Your task to perform on an android device: turn off picture-in-picture Image 0: 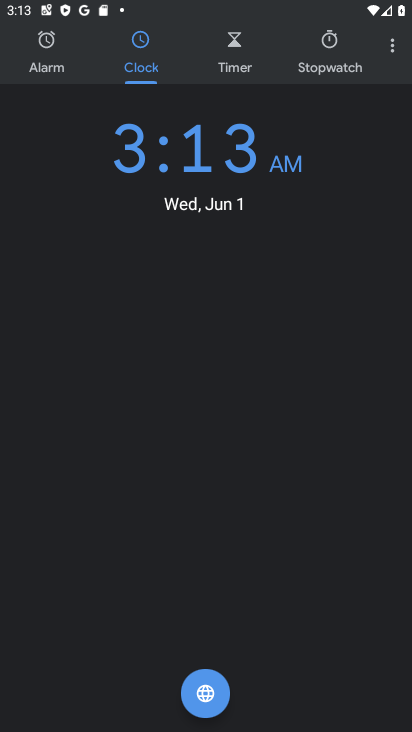
Step 0: press back button
Your task to perform on an android device: turn off picture-in-picture Image 1: 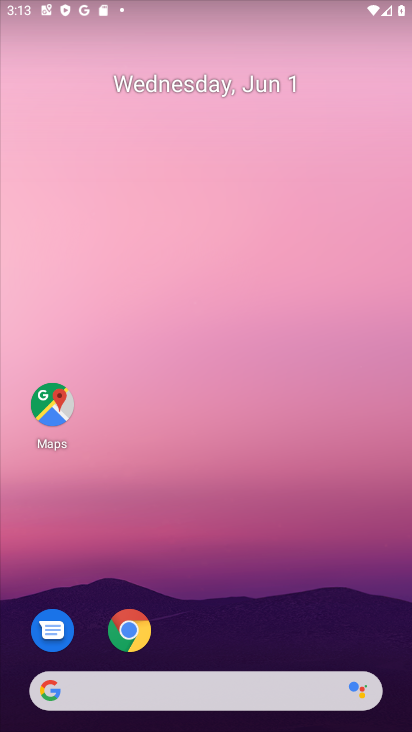
Step 1: drag from (206, 604) to (235, 73)
Your task to perform on an android device: turn off picture-in-picture Image 2: 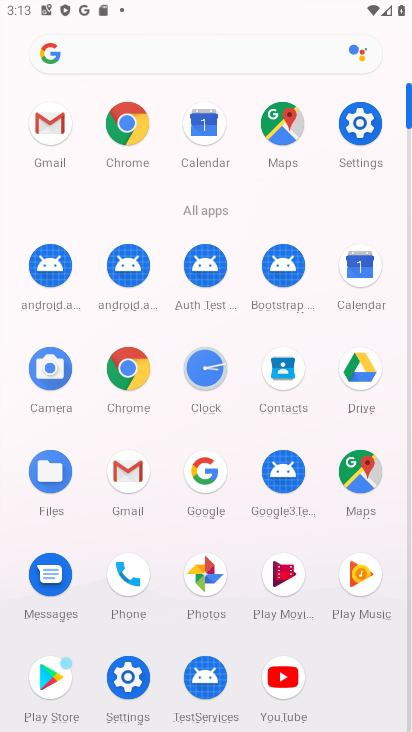
Step 2: click (369, 125)
Your task to perform on an android device: turn off picture-in-picture Image 3: 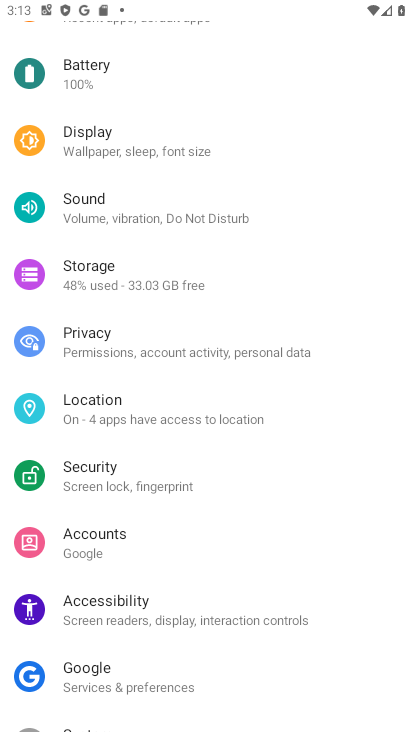
Step 3: drag from (144, 152) to (142, 672)
Your task to perform on an android device: turn off picture-in-picture Image 4: 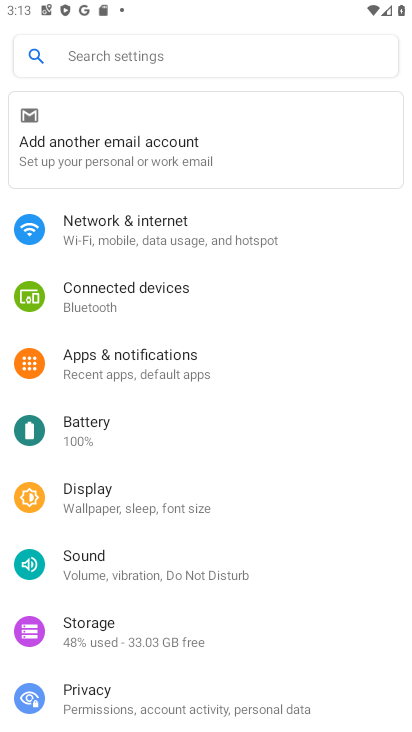
Step 4: click (164, 368)
Your task to perform on an android device: turn off picture-in-picture Image 5: 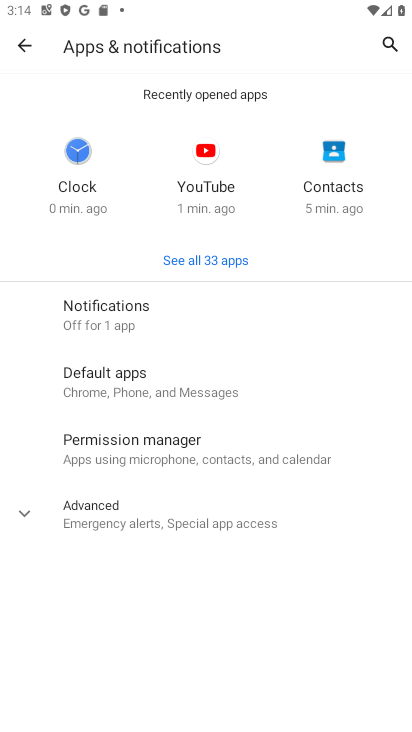
Step 5: click (157, 312)
Your task to perform on an android device: turn off picture-in-picture Image 6: 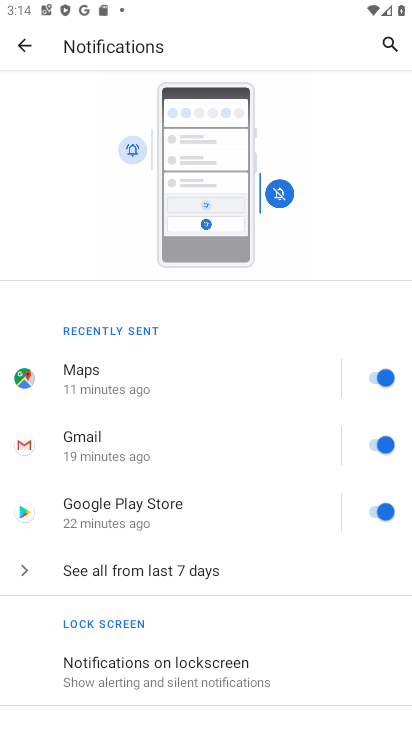
Step 6: drag from (150, 664) to (232, 274)
Your task to perform on an android device: turn off picture-in-picture Image 7: 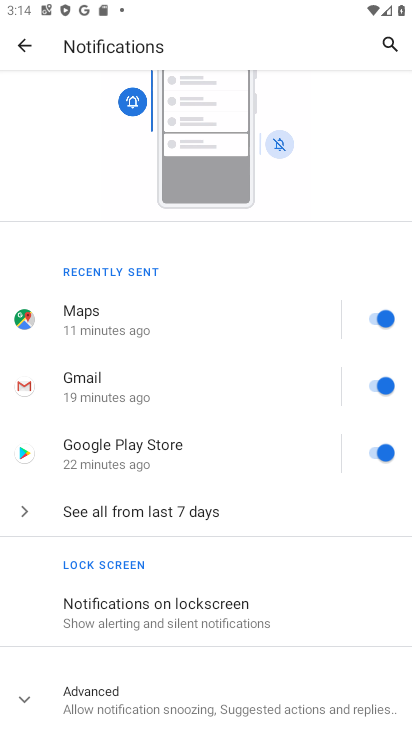
Step 7: click (109, 697)
Your task to perform on an android device: turn off picture-in-picture Image 8: 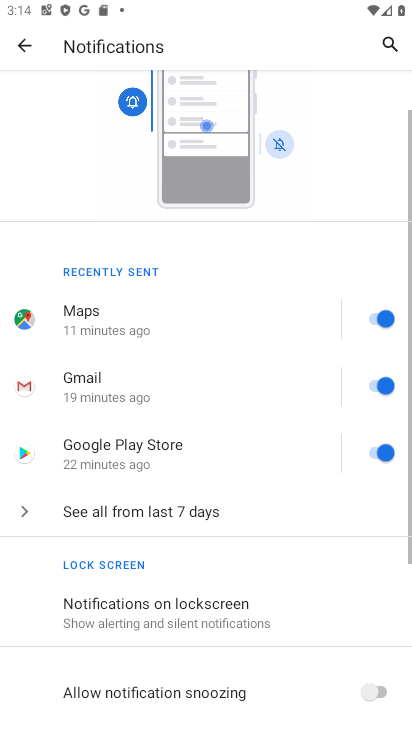
Step 8: drag from (127, 672) to (235, 94)
Your task to perform on an android device: turn off picture-in-picture Image 9: 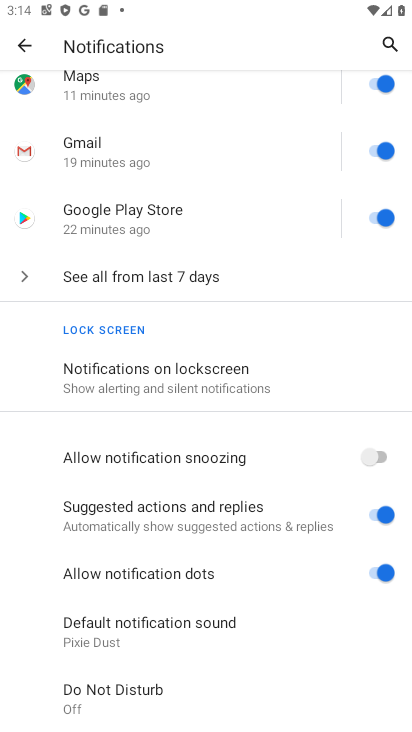
Step 9: drag from (147, 676) to (240, 34)
Your task to perform on an android device: turn off picture-in-picture Image 10: 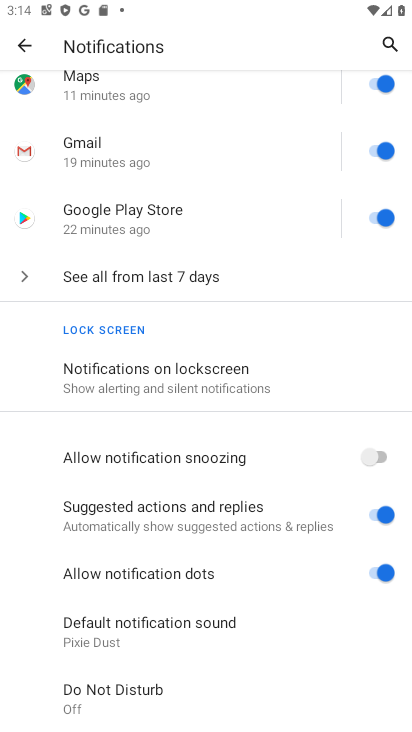
Step 10: click (31, 34)
Your task to perform on an android device: turn off picture-in-picture Image 11: 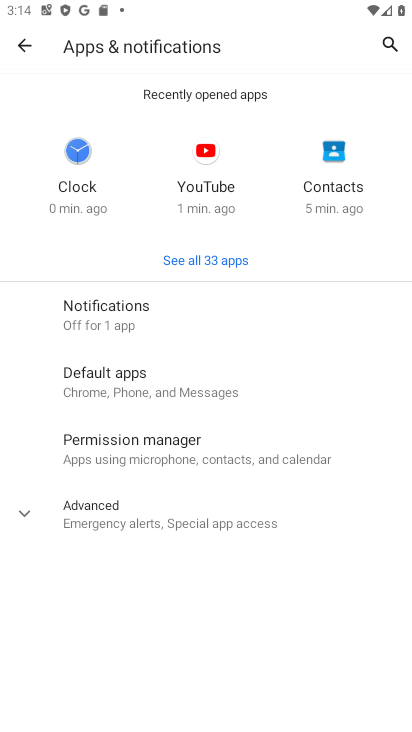
Step 11: click (164, 519)
Your task to perform on an android device: turn off picture-in-picture Image 12: 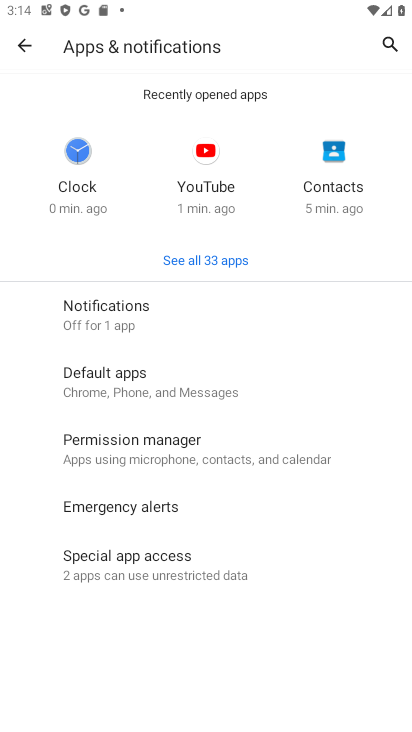
Step 12: click (146, 562)
Your task to perform on an android device: turn off picture-in-picture Image 13: 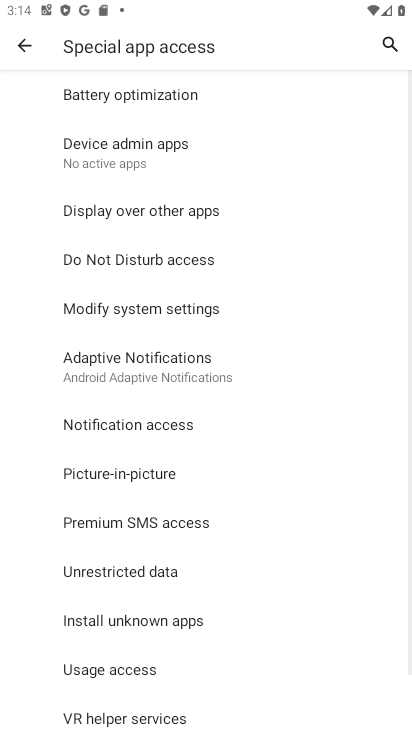
Step 13: click (125, 478)
Your task to perform on an android device: turn off picture-in-picture Image 14: 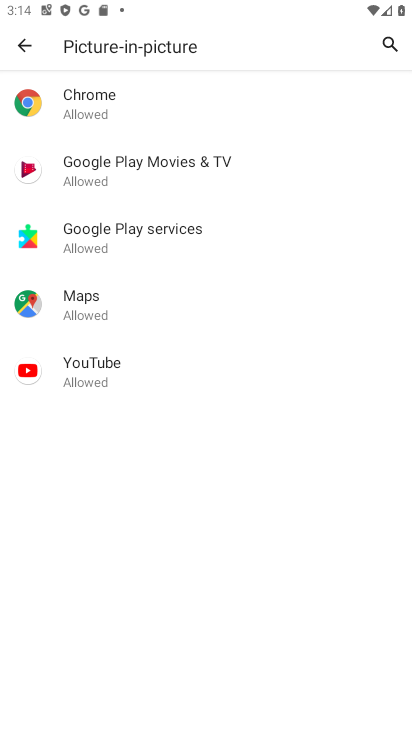
Step 14: click (94, 104)
Your task to perform on an android device: turn off picture-in-picture Image 15: 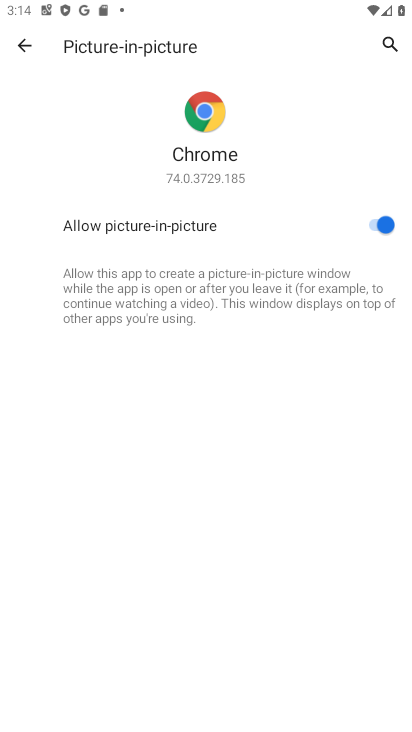
Step 15: click (390, 222)
Your task to perform on an android device: turn off picture-in-picture Image 16: 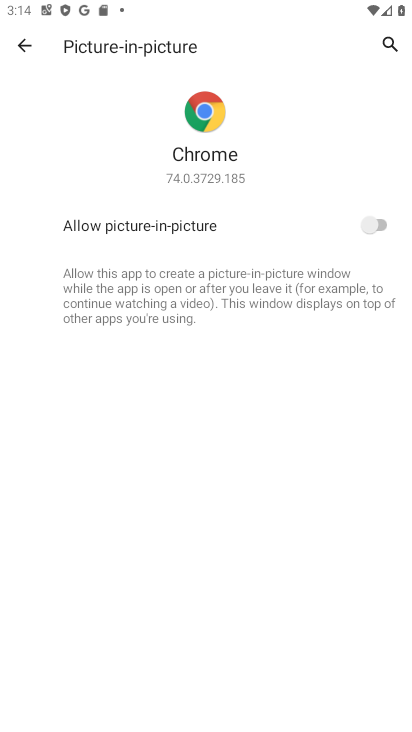
Step 16: task complete